Your task to perform on an android device: Open wifi settings Image 0: 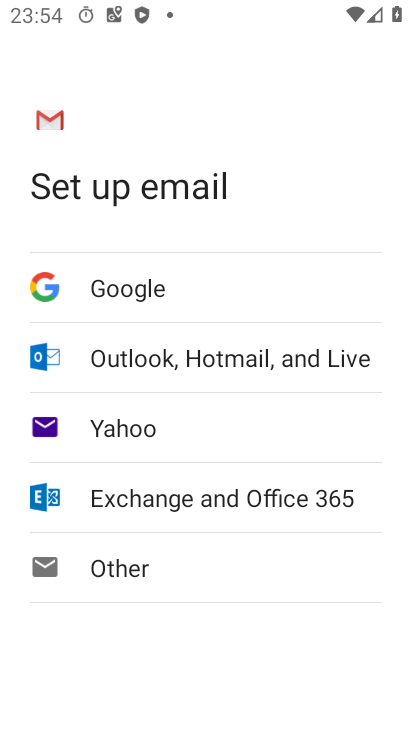
Step 0: press home button
Your task to perform on an android device: Open wifi settings Image 1: 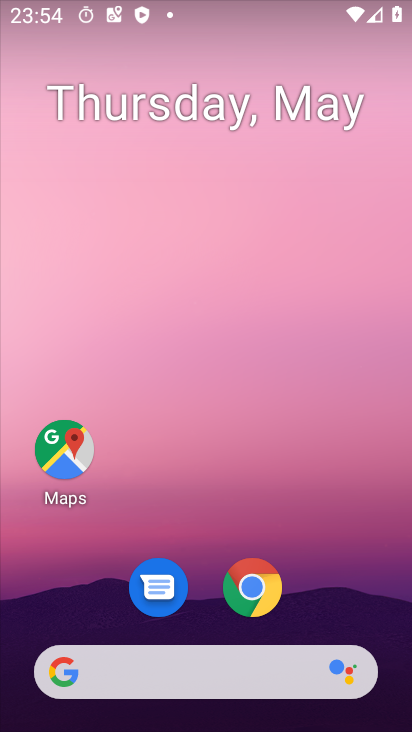
Step 1: drag from (325, 628) to (342, 3)
Your task to perform on an android device: Open wifi settings Image 2: 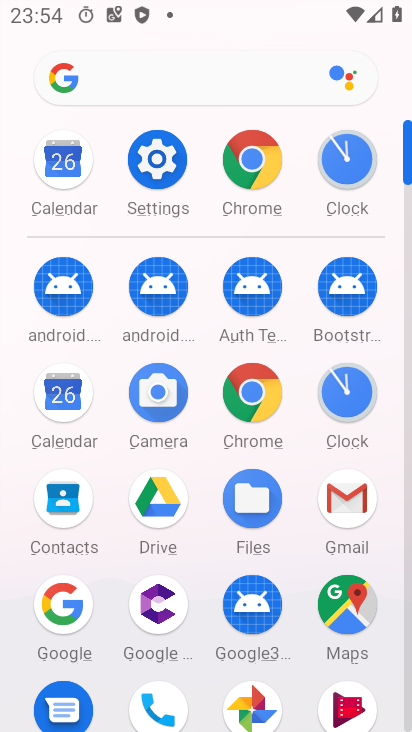
Step 2: click (163, 155)
Your task to perform on an android device: Open wifi settings Image 3: 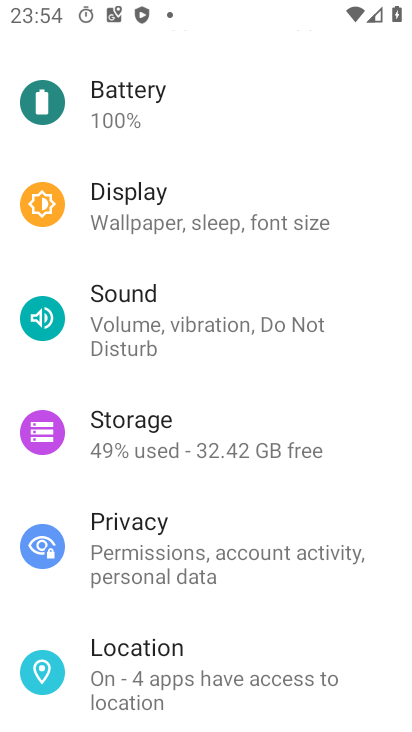
Step 3: drag from (318, 151) to (311, 501)
Your task to perform on an android device: Open wifi settings Image 4: 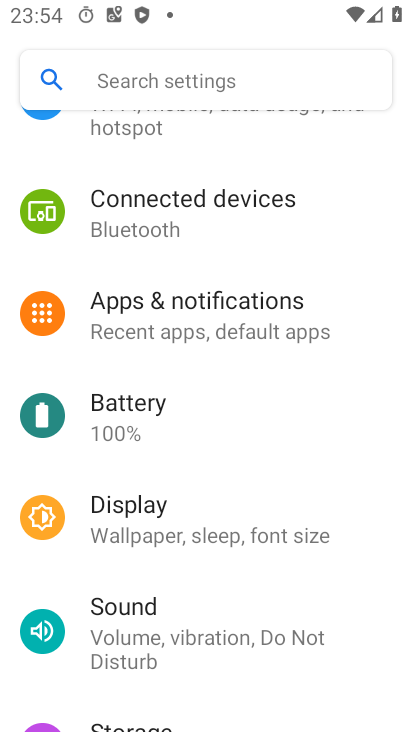
Step 4: drag from (264, 198) to (250, 477)
Your task to perform on an android device: Open wifi settings Image 5: 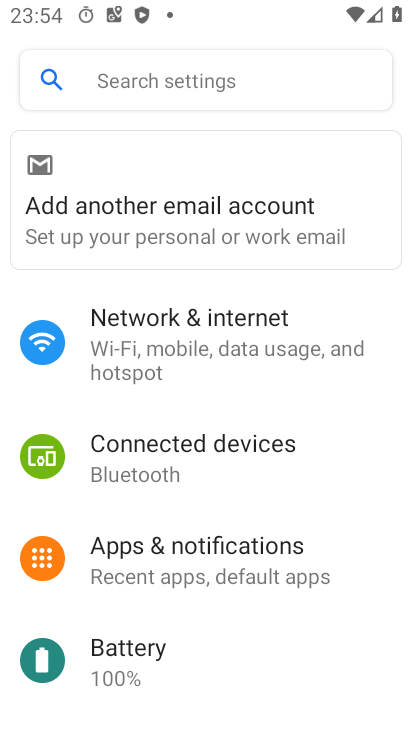
Step 5: click (149, 343)
Your task to perform on an android device: Open wifi settings Image 6: 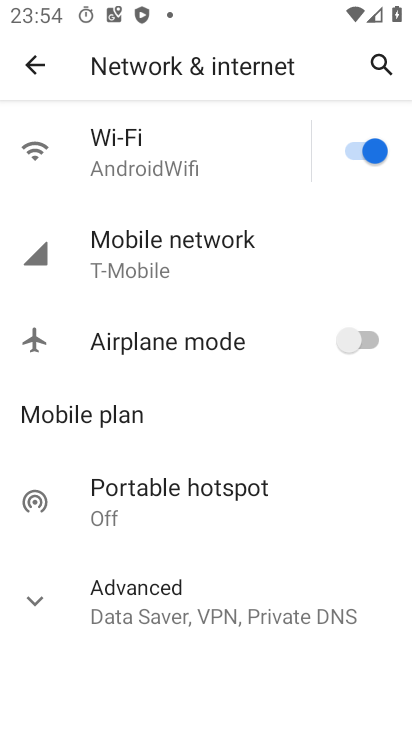
Step 6: click (111, 158)
Your task to perform on an android device: Open wifi settings Image 7: 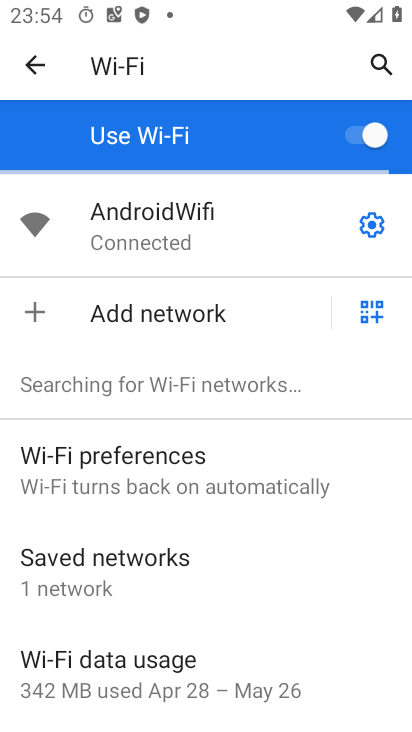
Step 7: task complete